Your task to perform on an android device: Open calendar and show me the fourth week of next month Image 0: 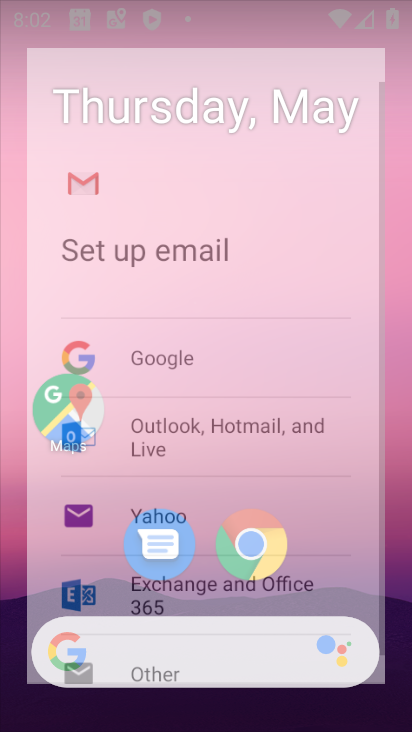
Step 0: press home button
Your task to perform on an android device: Open calendar and show me the fourth week of next month Image 1: 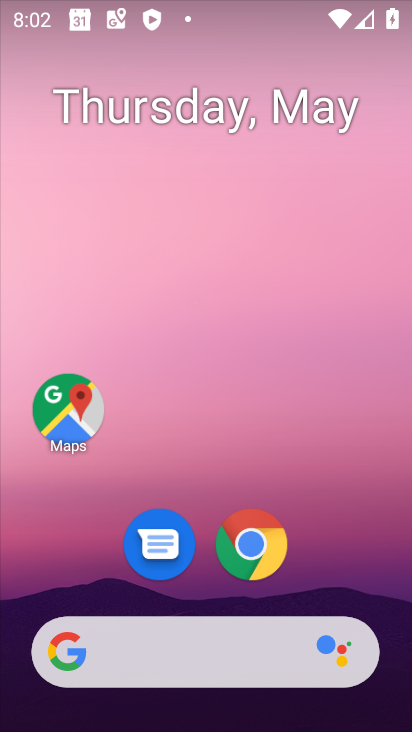
Step 1: drag from (352, 582) to (339, 34)
Your task to perform on an android device: Open calendar and show me the fourth week of next month Image 2: 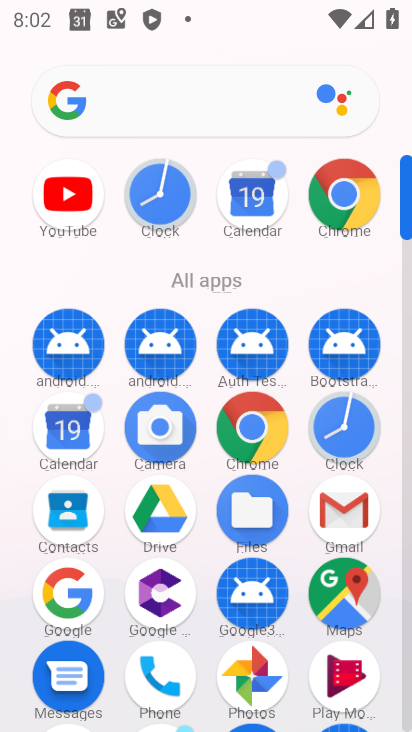
Step 2: click (255, 170)
Your task to perform on an android device: Open calendar and show me the fourth week of next month Image 3: 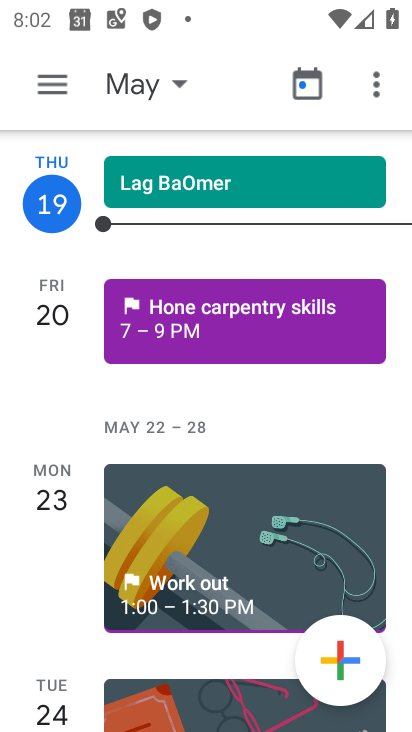
Step 3: click (172, 77)
Your task to perform on an android device: Open calendar and show me the fourth week of next month Image 4: 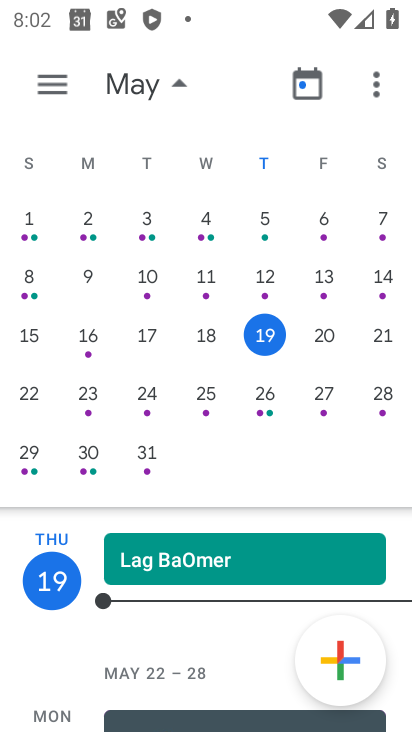
Step 4: drag from (358, 301) to (124, 395)
Your task to perform on an android device: Open calendar and show me the fourth week of next month Image 5: 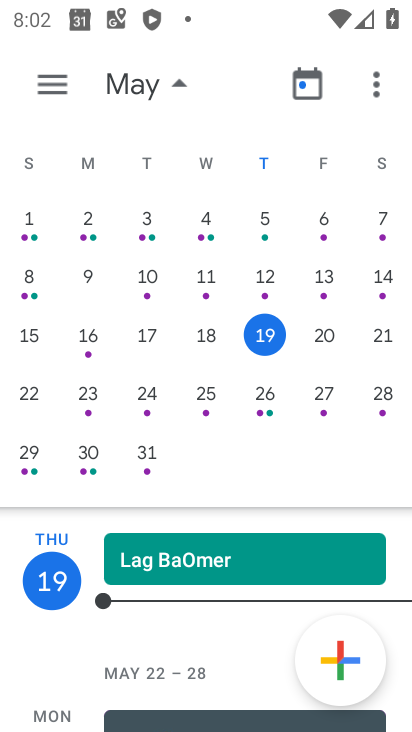
Step 5: drag from (392, 327) to (10, 527)
Your task to perform on an android device: Open calendar and show me the fourth week of next month Image 6: 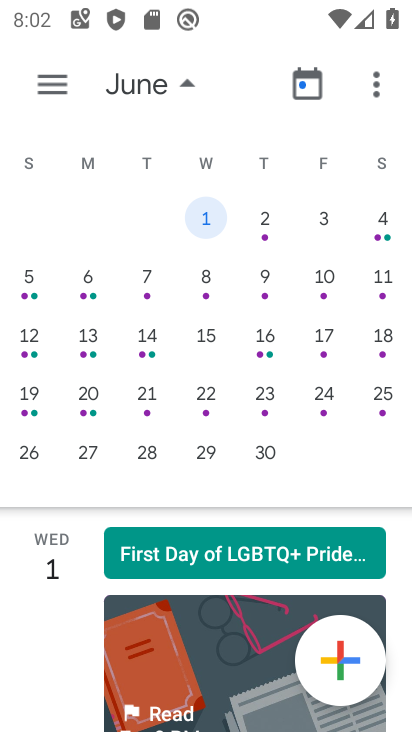
Step 6: click (203, 393)
Your task to perform on an android device: Open calendar and show me the fourth week of next month Image 7: 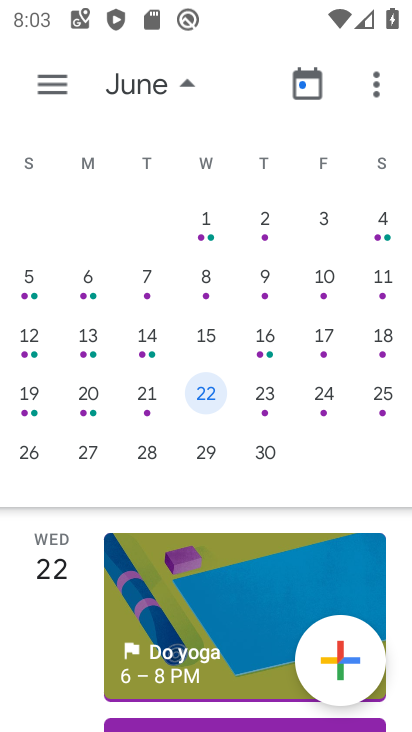
Step 7: task complete